Your task to perform on an android device: Open Chrome and go to settings Image 0: 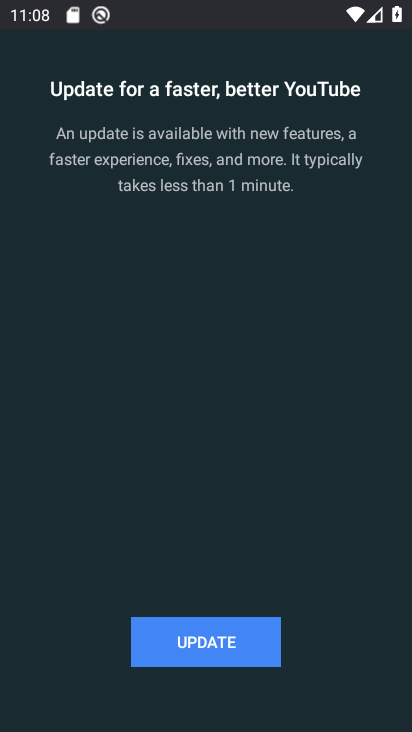
Step 0: press home button
Your task to perform on an android device: Open Chrome and go to settings Image 1: 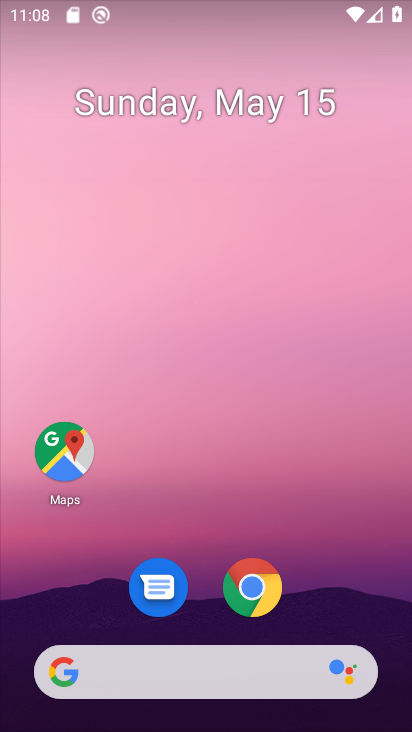
Step 1: drag from (210, 627) to (225, 161)
Your task to perform on an android device: Open Chrome and go to settings Image 2: 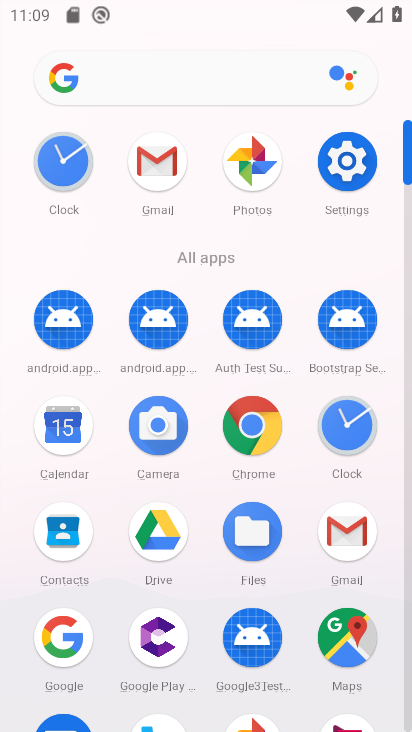
Step 2: click (256, 428)
Your task to perform on an android device: Open Chrome and go to settings Image 3: 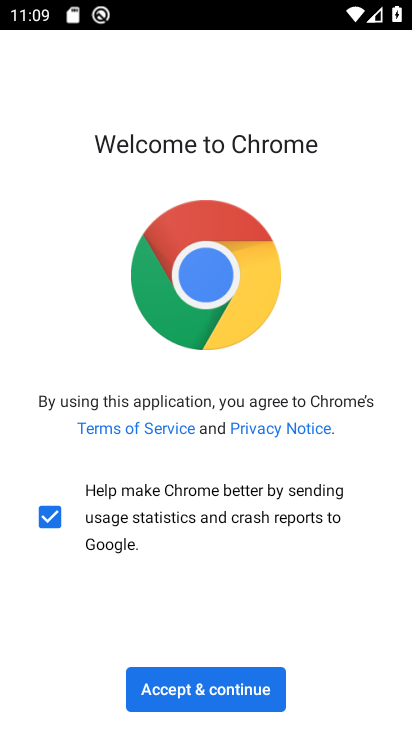
Step 3: click (233, 675)
Your task to perform on an android device: Open Chrome and go to settings Image 4: 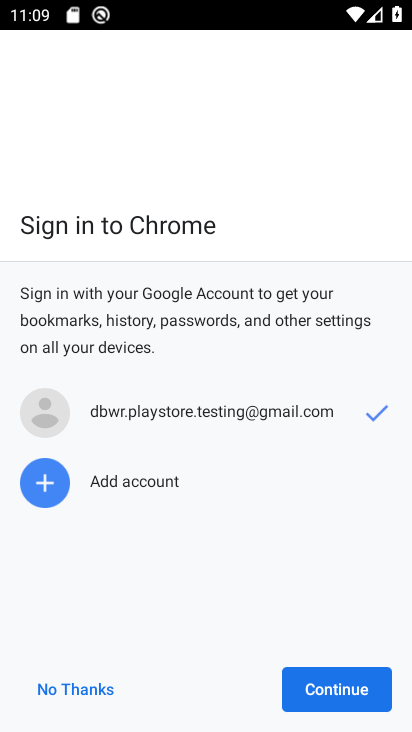
Step 4: click (322, 683)
Your task to perform on an android device: Open Chrome and go to settings Image 5: 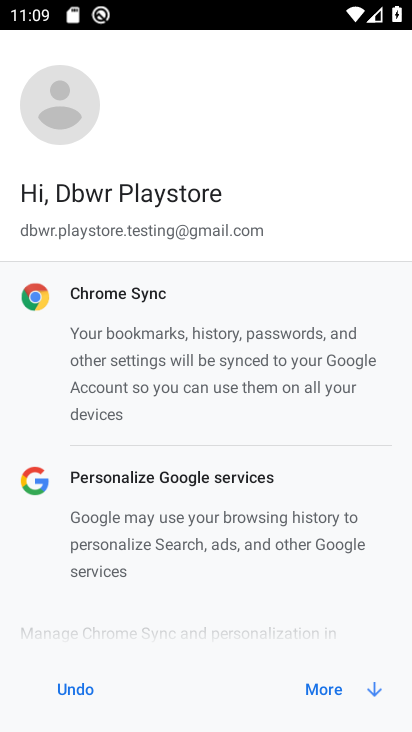
Step 5: click (330, 683)
Your task to perform on an android device: Open Chrome and go to settings Image 6: 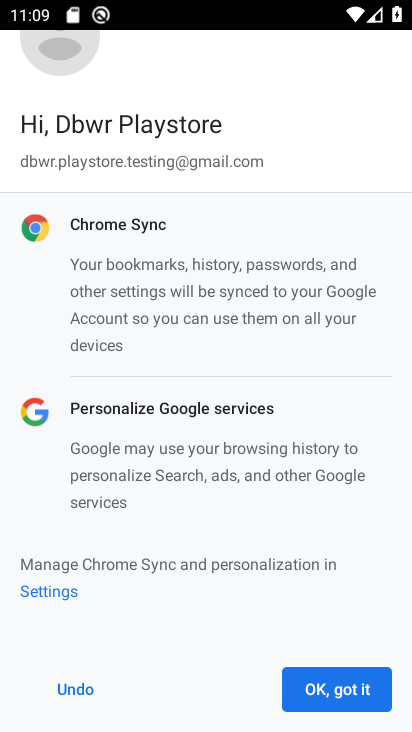
Step 6: click (323, 678)
Your task to perform on an android device: Open Chrome and go to settings Image 7: 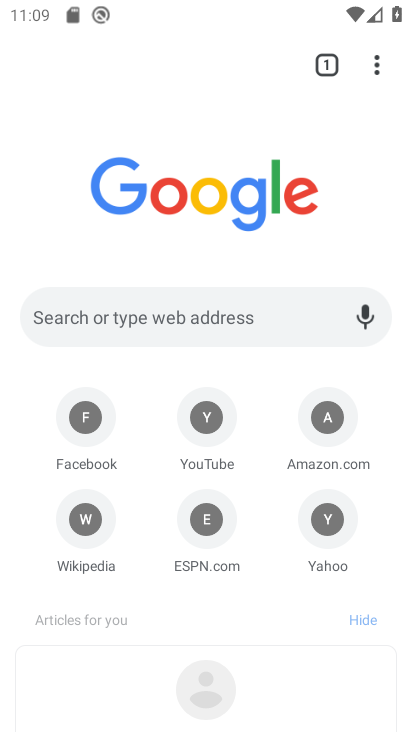
Step 7: task complete